Your task to perform on an android device: When is my next appointment? Image 0: 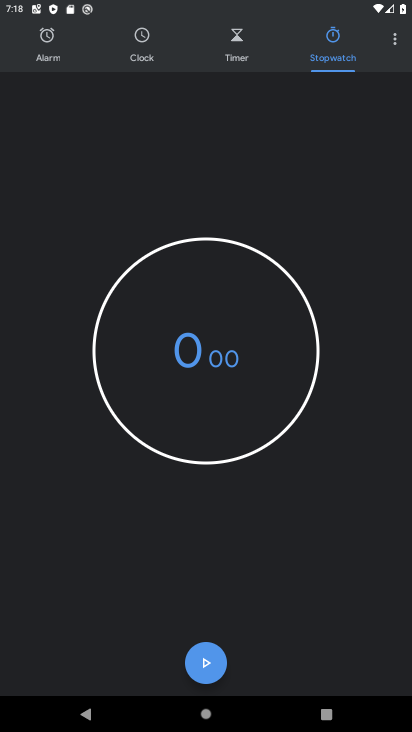
Step 0: press home button
Your task to perform on an android device: When is my next appointment? Image 1: 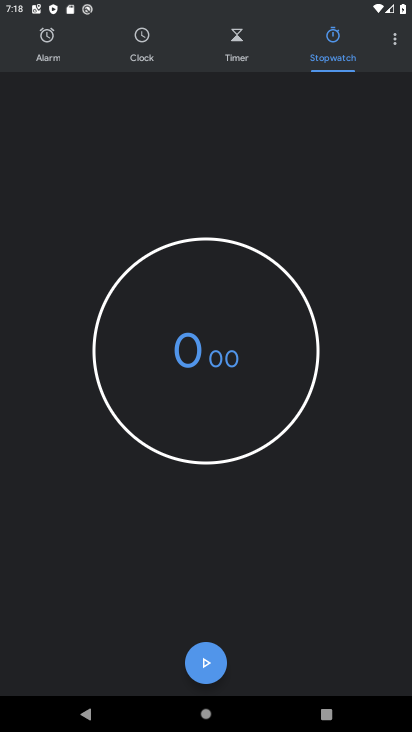
Step 1: press home button
Your task to perform on an android device: When is my next appointment? Image 2: 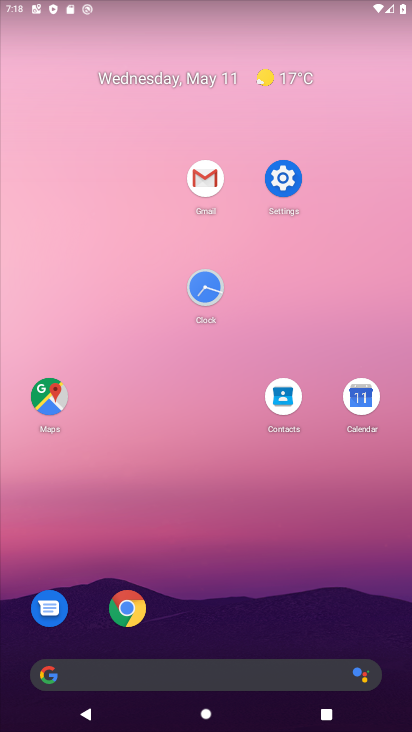
Step 2: click (349, 393)
Your task to perform on an android device: When is my next appointment? Image 3: 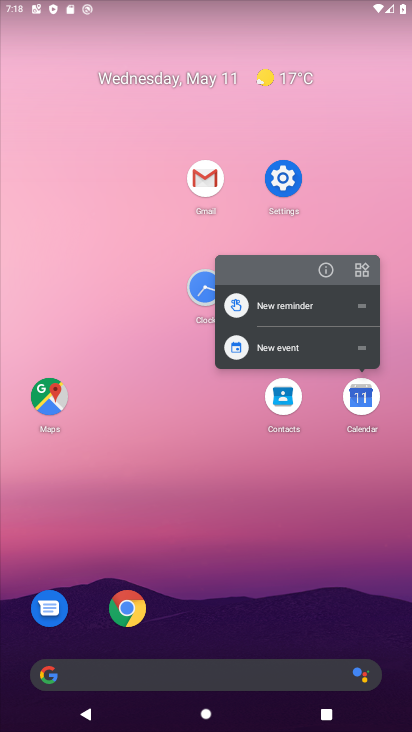
Step 3: click (349, 393)
Your task to perform on an android device: When is my next appointment? Image 4: 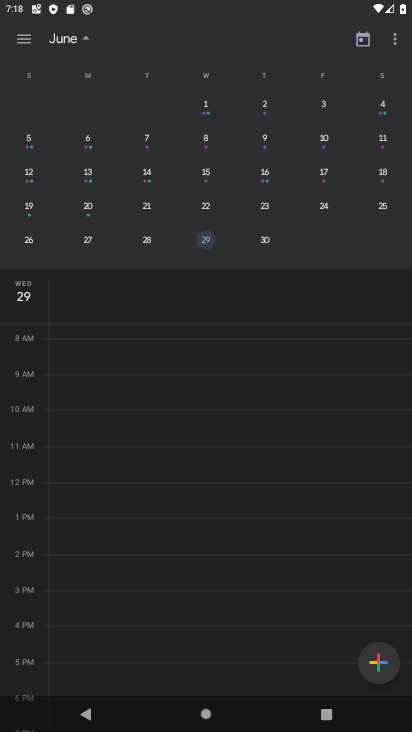
Step 4: task complete